Your task to perform on an android device: open device folders in google photos Image 0: 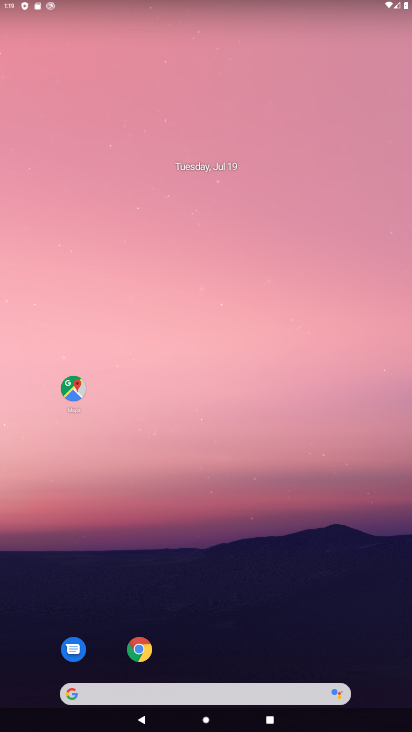
Step 0: drag from (184, 660) to (203, 32)
Your task to perform on an android device: open device folders in google photos Image 1: 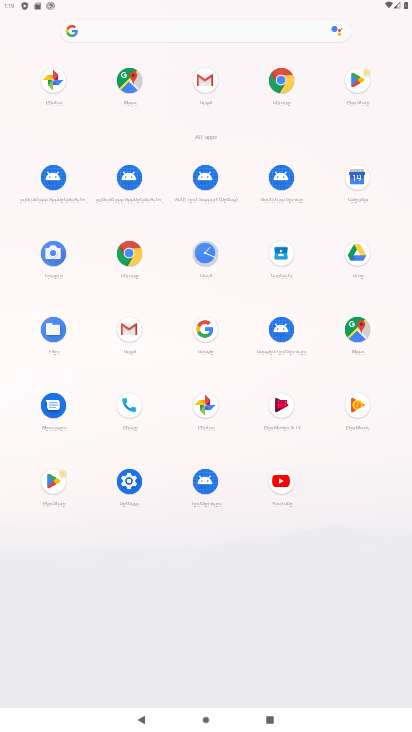
Step 1: click (55, 70)
Your task to perform on an android device: open device folders in google photos Image 2: 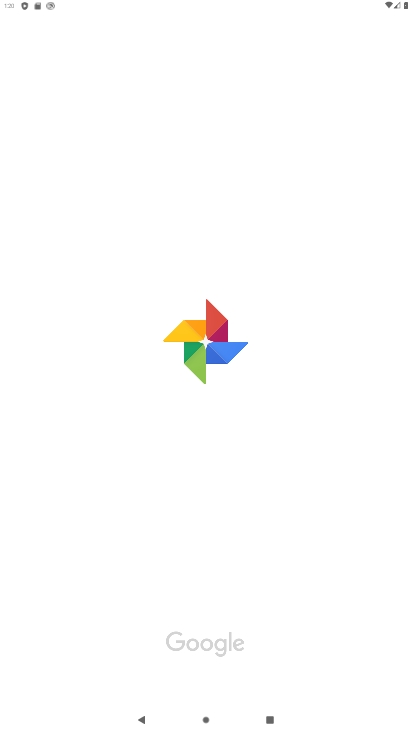
Step 2: click (52, 76)
Your task to perform on an android device: open device folders in google photos Image 3: 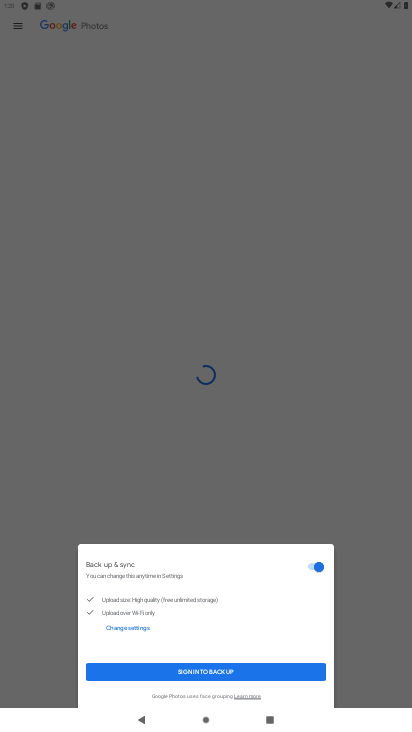
Step 3: click (17, 27)
Your task to perform on an android device: open device folders in google photos Image 4: 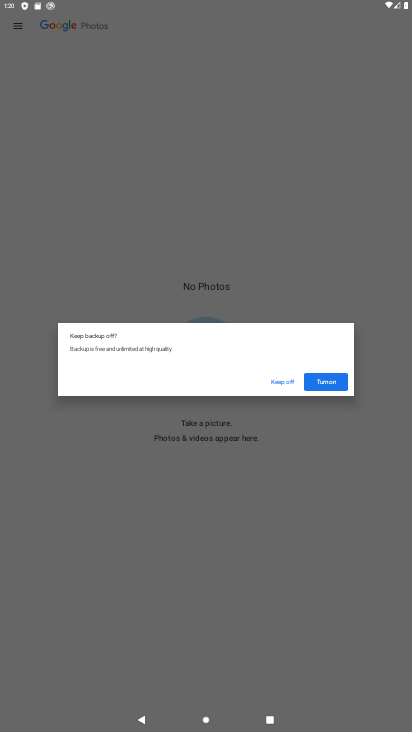
Step 4: click (272, 385)
Your task to perform on an android device: open device folders in google photos Image 5: 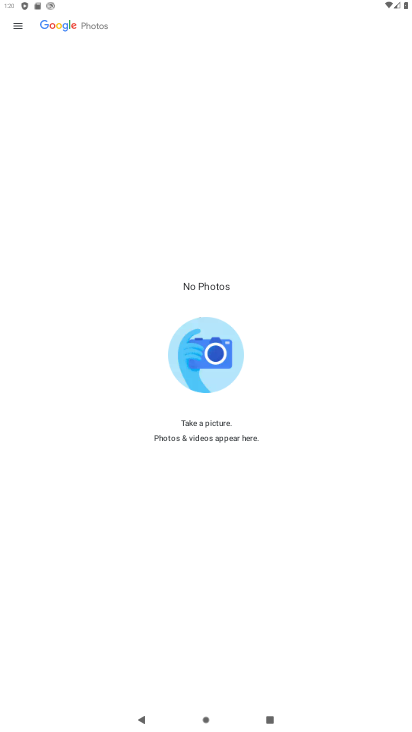
Step 5: click (28, 30)
Your task to perform on an android device: open device folders in google photos Image 6: 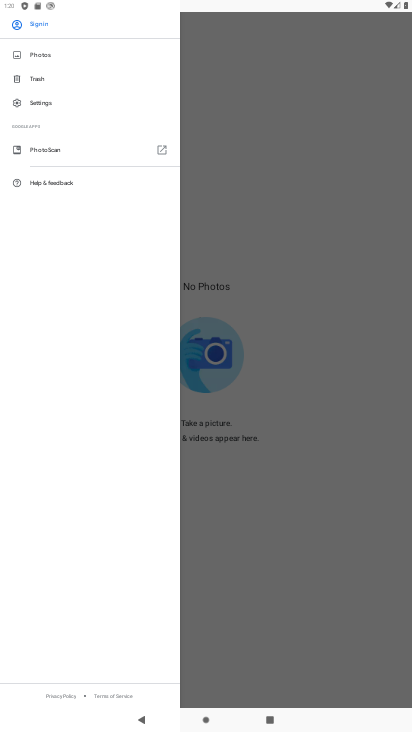
Step 6: task complete